Your task to perform on an android device: Turn off the flashlight Image 0: 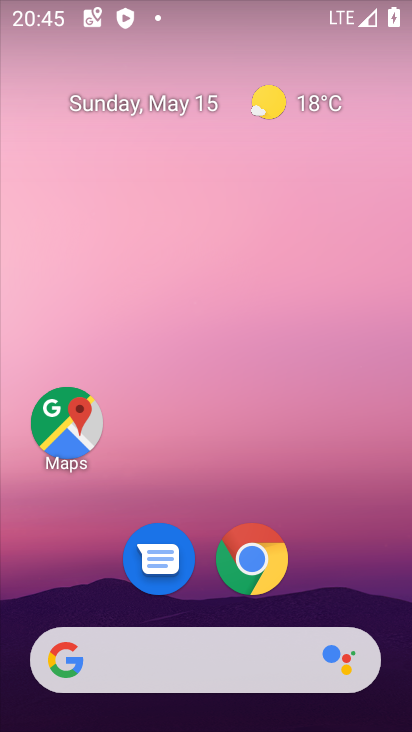
Step 0: drag from (228, 478) to (146, 7)
Your task to perform on an android device: Turn off the flashlight Image 1: 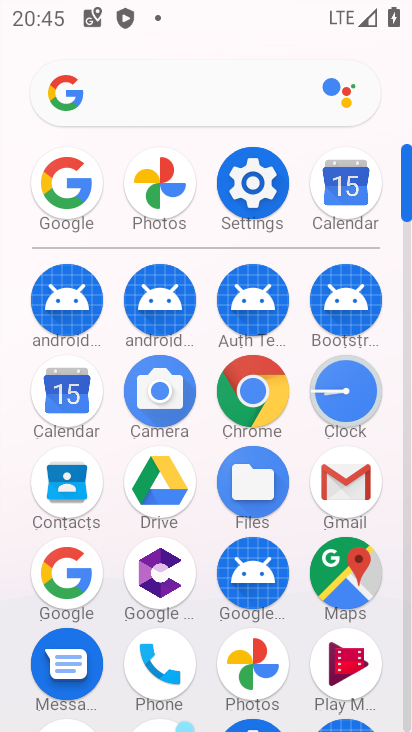
Step 1: click (257, 179)
Your task to perform on an android device: Turn off the flashlight Image 2: 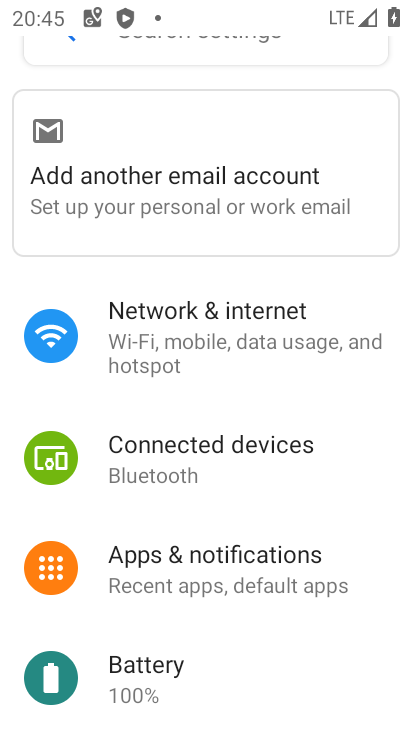
Step 2: click (178, 330)
Your task to perform on an android device: Turn off the flashlight Image 3: 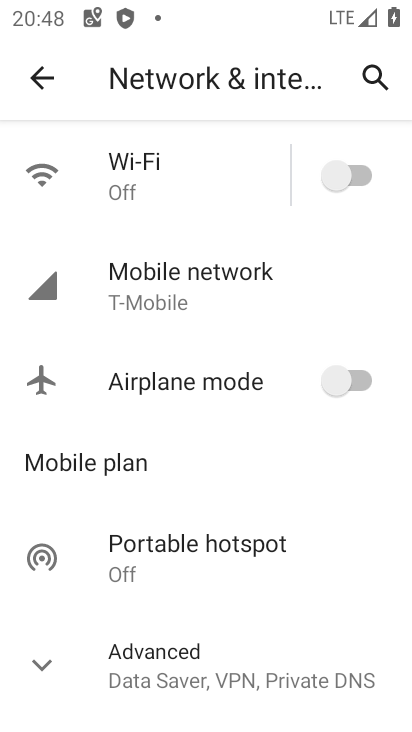
Step 3: task complete